Your task to perform on an android device: Clear the shopping cart on amazon. Add acer nitro to the cart on amazon Image 0: 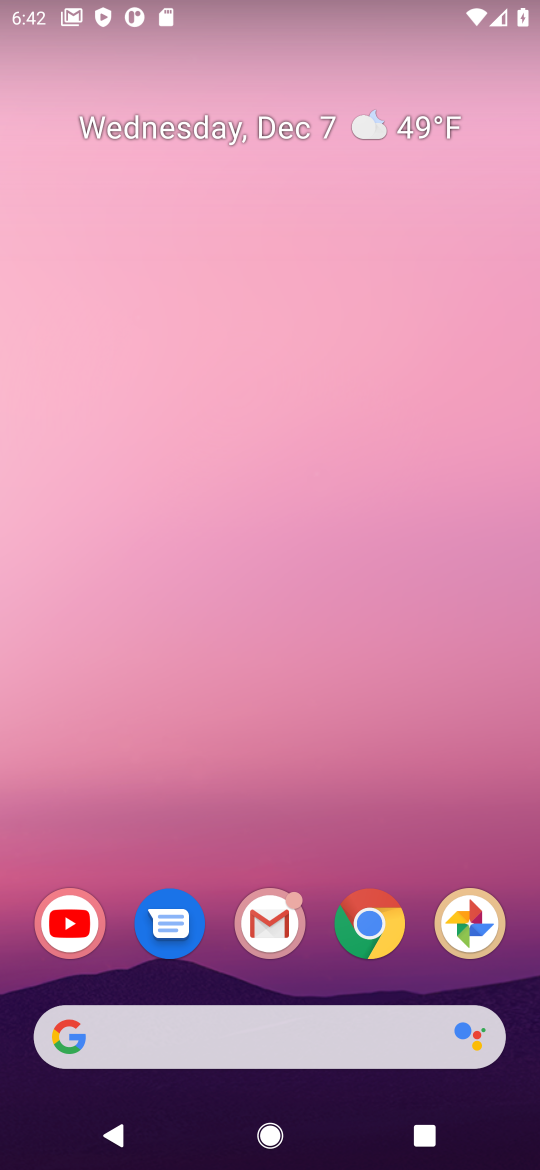
Step 0: drag from (246, 1040) to (278, 343)
Your task to perform on an android device: Clear the shopping cart on amazon. Add acer nitro to the cart on amazon Image 1: 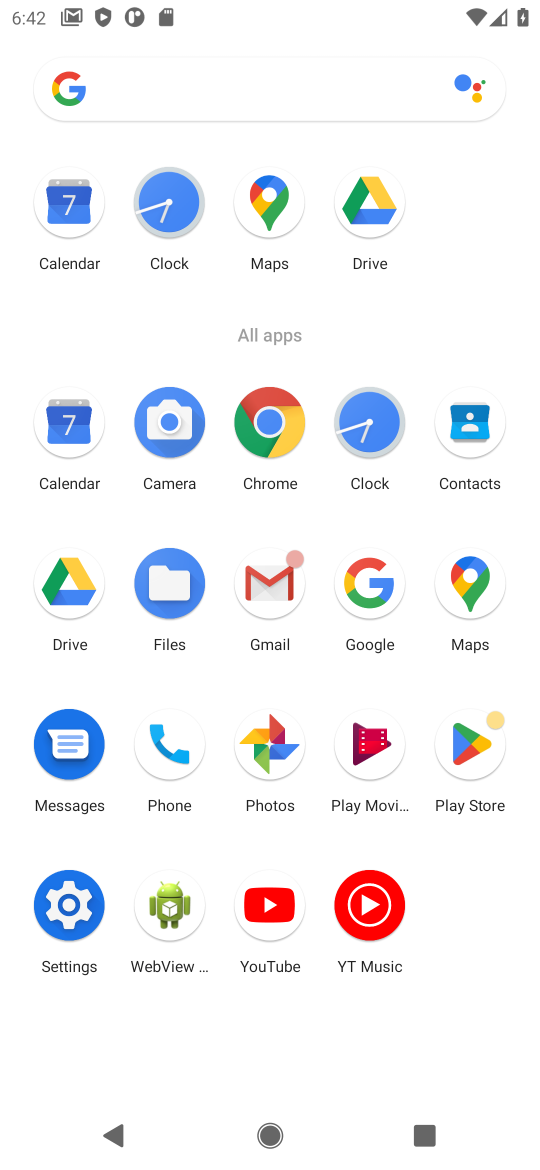
Step 1: click (359, 589)
Your task to perform on an android device: Clear the shopping cart on amazon. Add acer nitro to the cart on amazon Image 2: 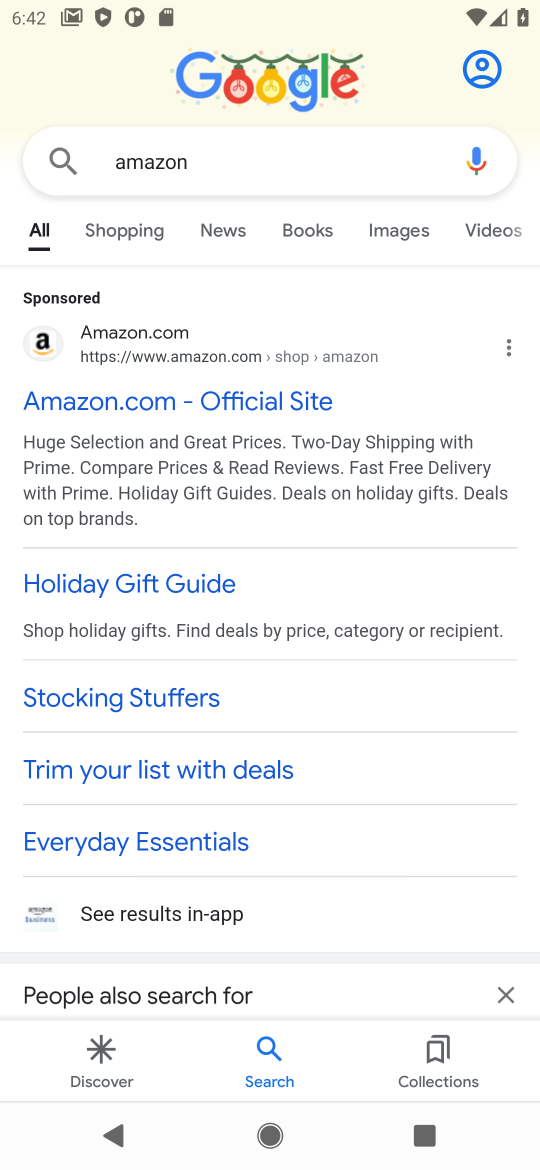
Step 2: click (145, 169)
Your task to perform on an android device: Clear the shopping cart on amazon. Add acer nitro to the cart on amazon Image 3: 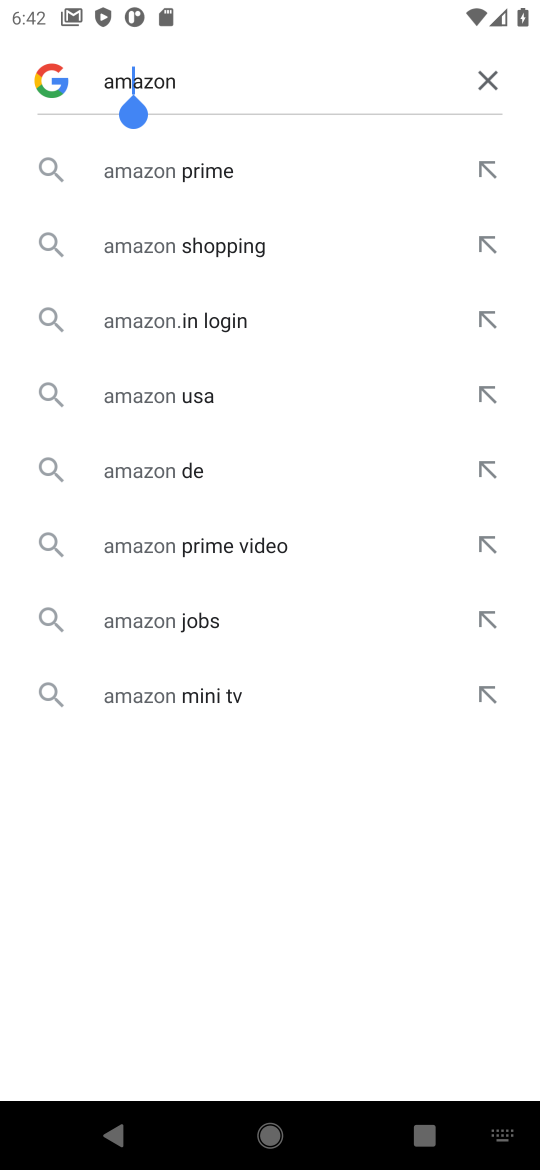
Step 3: click (487, 85)
Your task to perform on an android device: Clear the shopping cart on amazon. Add acer nitro to the cart on amazon Image 4: 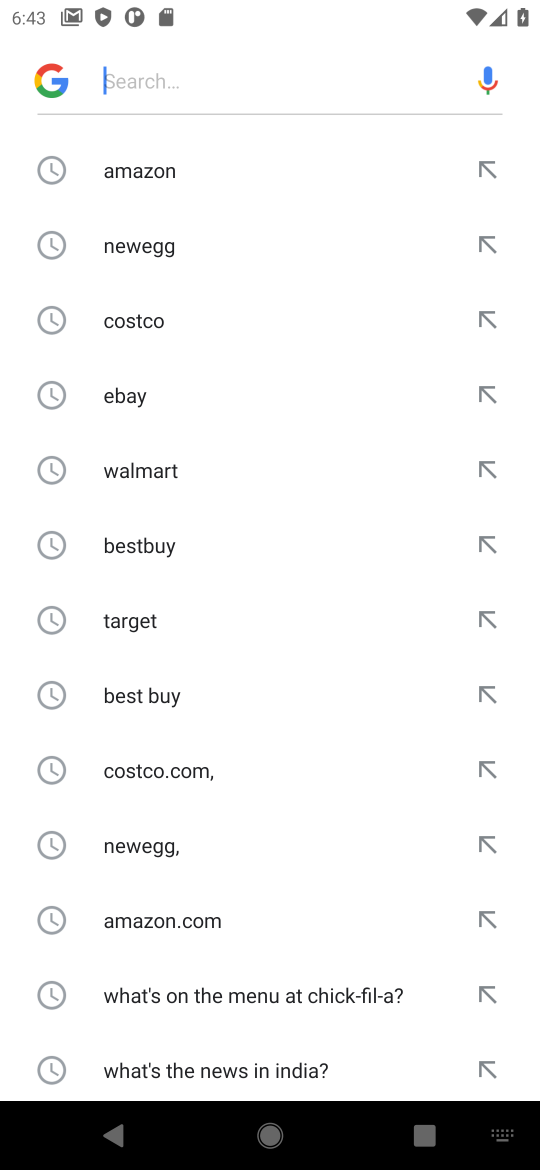
Step 4: click (146, 172)
Your task to perform on an android device: Clear the shopping cart on amazon. Add acer nitro to the cart on amazon Image 5: 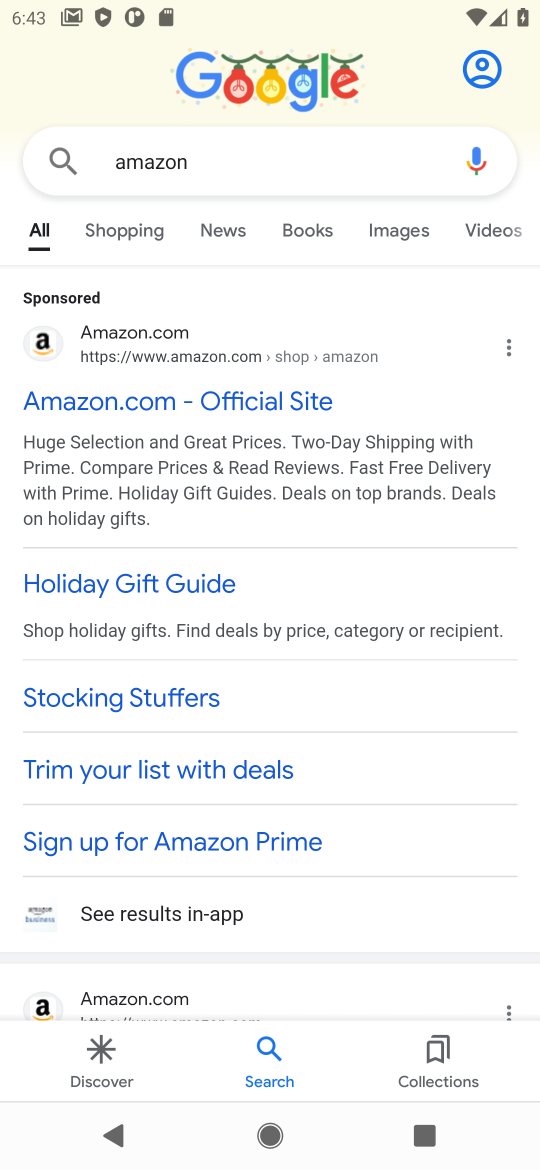
Step 5: click (135, 402)
Your task to perform on an android device: Clear the shopping cart on amazon. Add acer nitro to the cart on amazon Image 6: 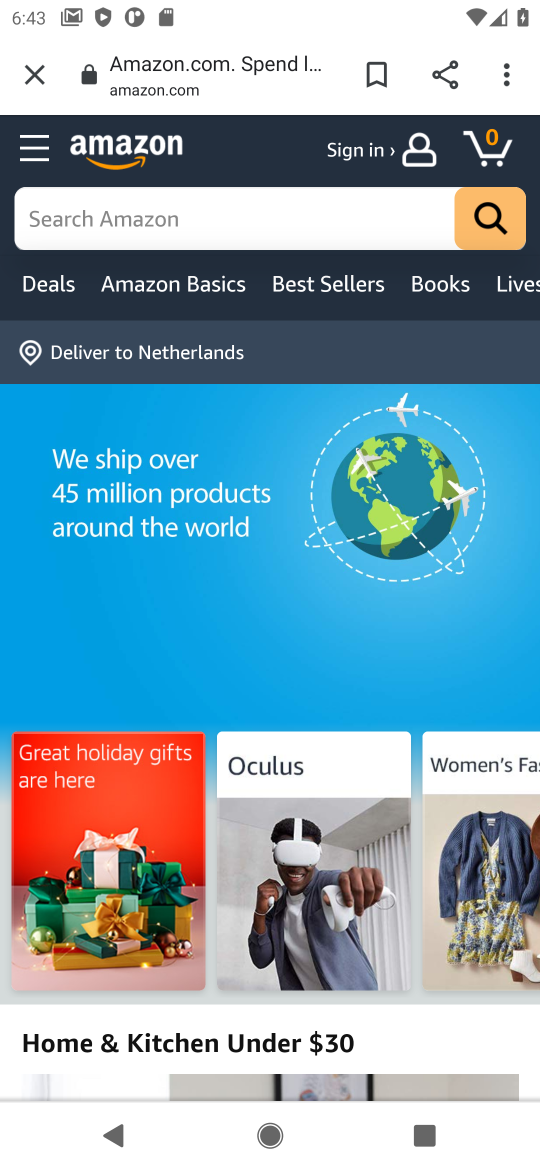
Step 6: click (76, 217)
Your task to perform on an android device: Clear the shopping cart on amazon. Add acer nitro to the cart on amazon Image 7: 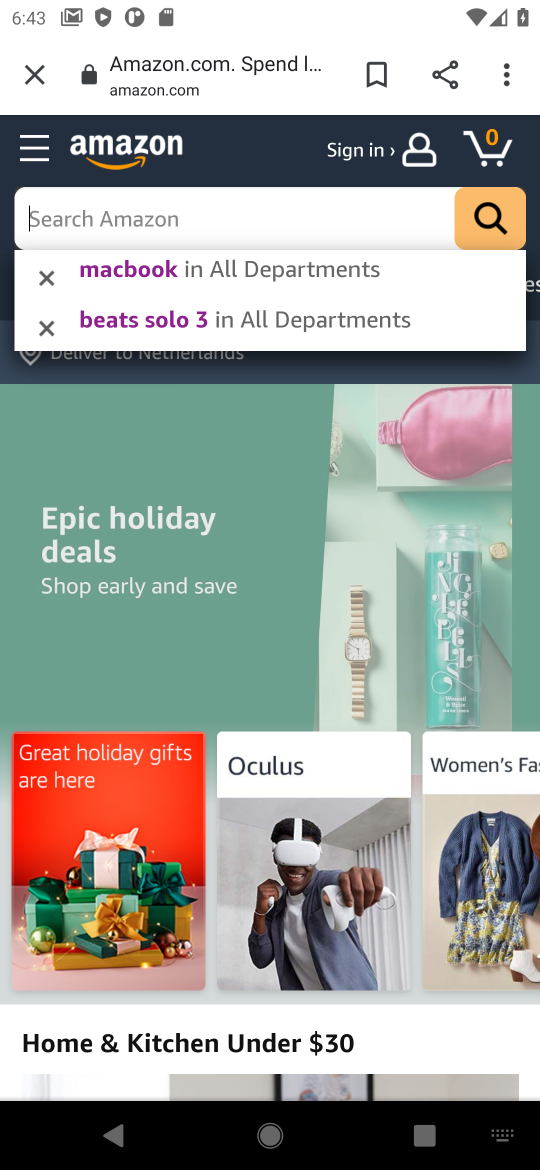
Step 7: click (81, 221)
Your task to perform on an android device: Clear the shopping cart on amazon. Add acer nitro to the cart on amazon Image 8: 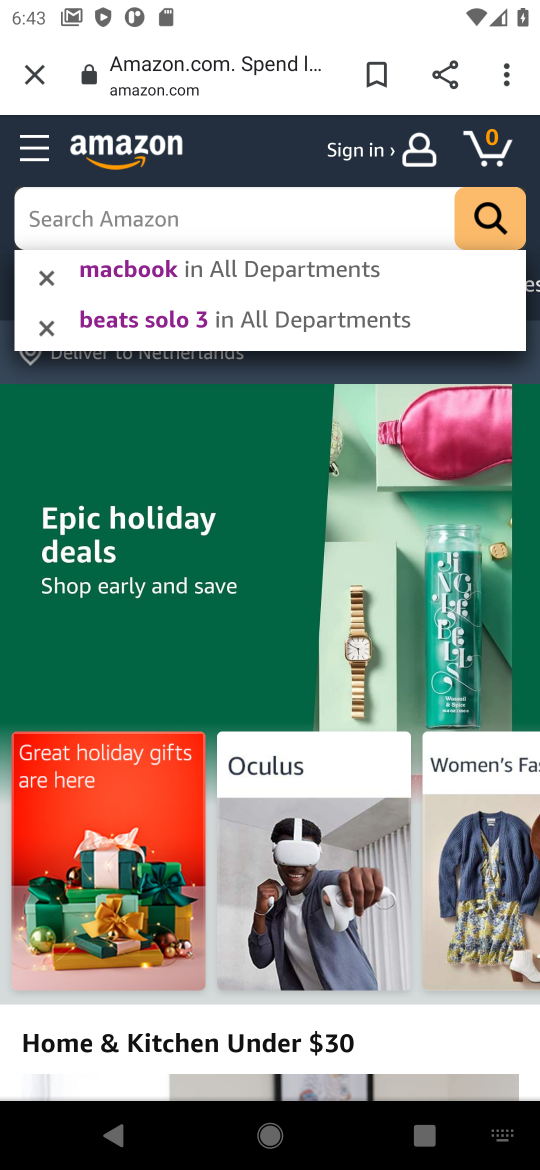
Step 8: type "acer nitro"
Your task to perform on an android device: Clear the shopping cart on amazon. Add acer nitro to the cart on amazon Image 9: 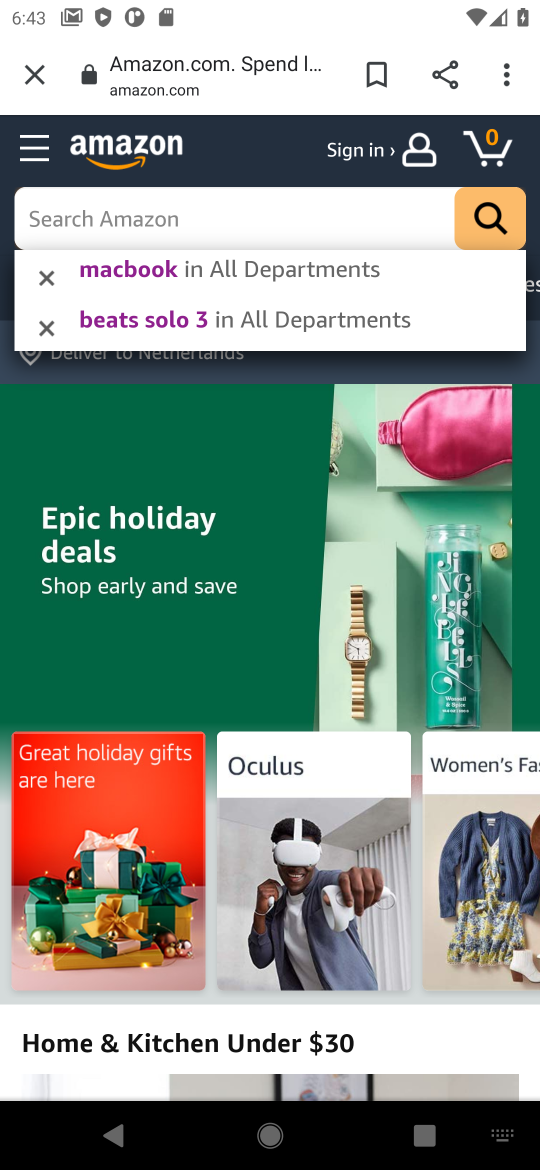
Step 9: click (485, 214)
Your task to perform on an android device: Clear the shopping cart on amazon. Add acer nitro to the cart on amazon Image 10: 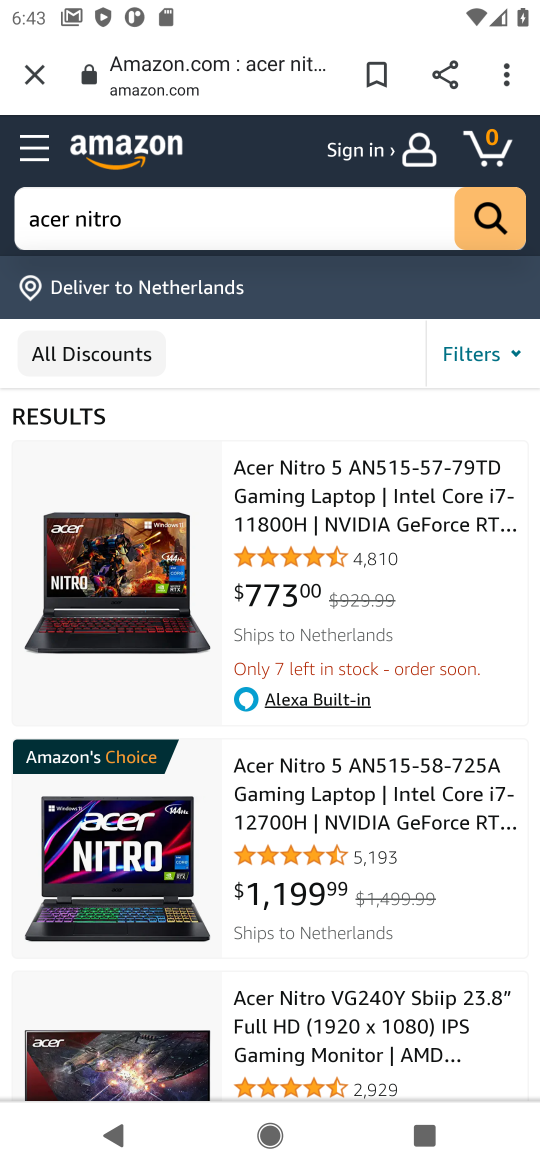
Step 10: click (283, 486)
Your task to perform on an android device: Clear the shopping cart on amazon. Add acer nitro to the cart on amazon Image 11: 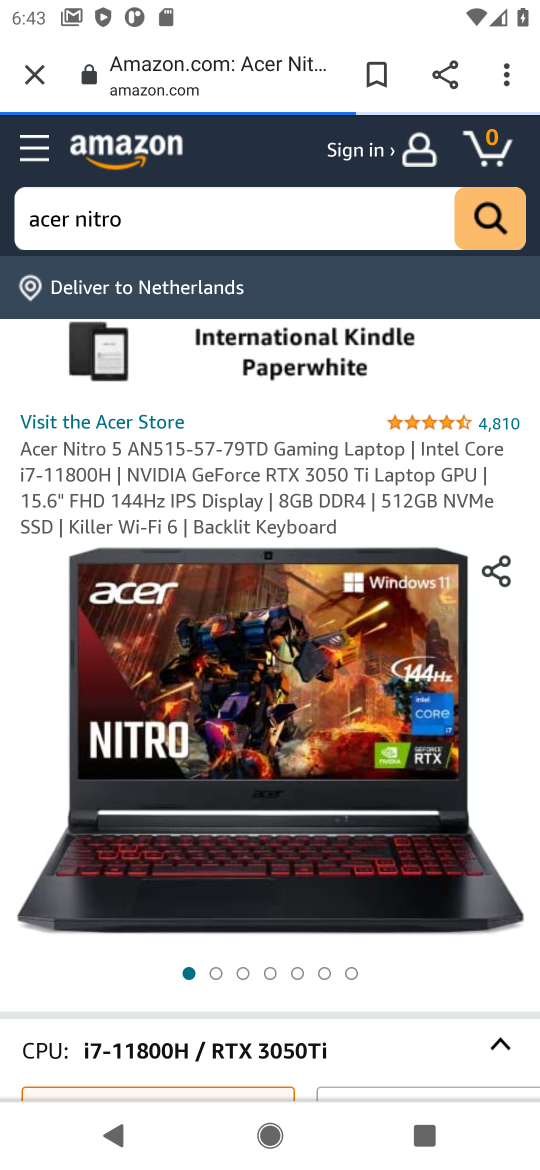
Step 11: drag from (293, 857) to (291, 389)
Your task to perform on an android device: Clear the shopping cart on amazon. Add acer nitro to the cart on amazon Image 12: 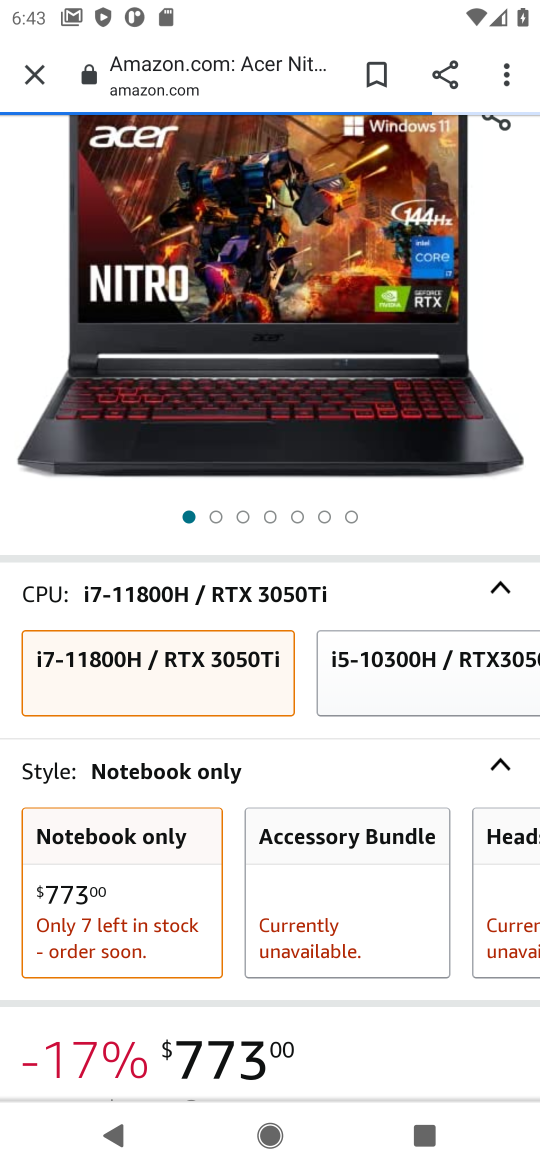
Step 12: drag from (244, 891) to (244, 479)
Your task to perform on an android device: Clear the shopping cart on amazon. Add acer nitro to the cart on amazon Image 13: 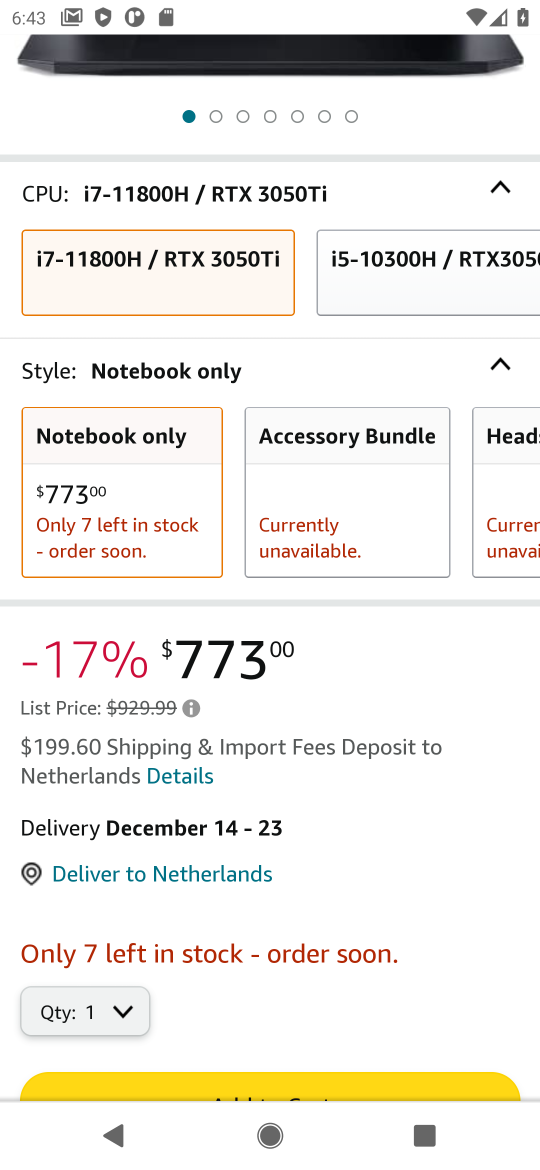
Step 13: drag from (190, 959) to (185, 511)
Your task to perform on an android device: Clear the shopping cart on amazon. Add acer nitro to the cart on amazon Image 14: 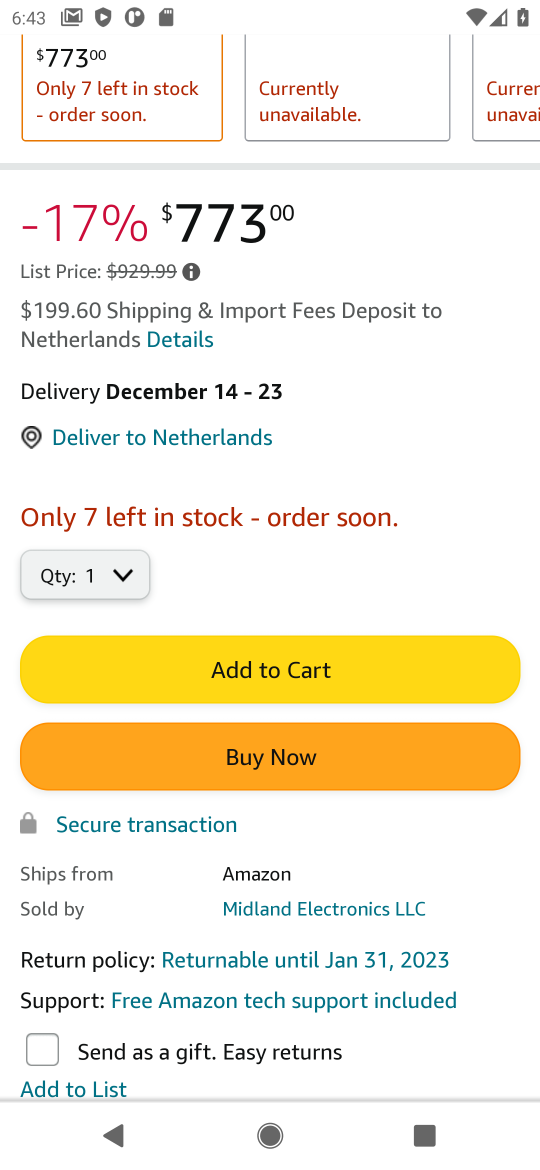
Step 14: click (291, 674)
Your task to perform on an android device: Clear the shopping cart on amazon. Add acer nitro to the cart on amazon Image 15: 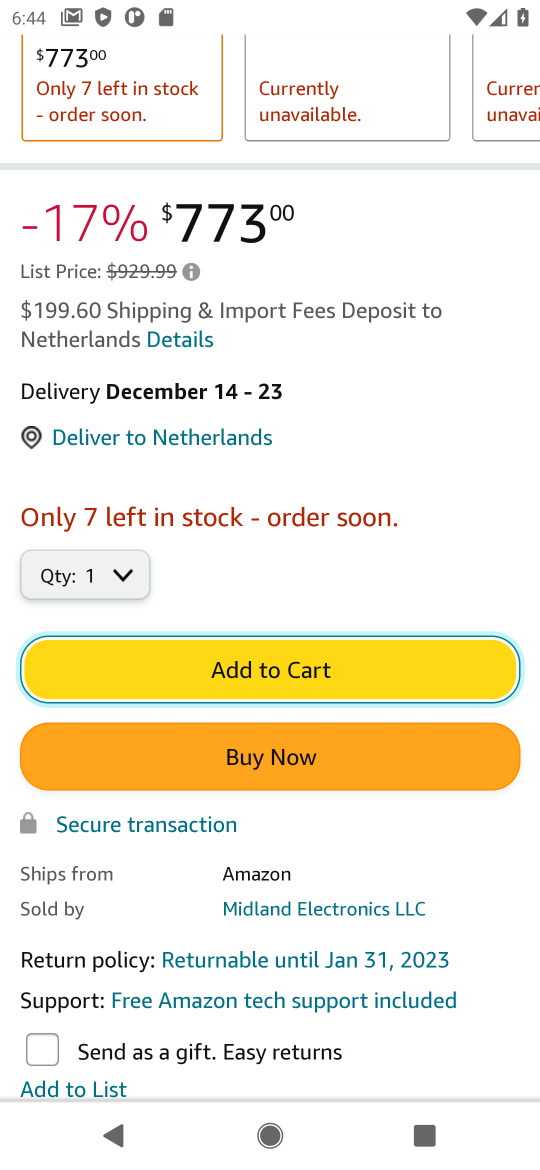
Step 15: click (293, 662)
Your task to perform on an android device: Clear the shopping cart on amazon. Add acer nitro to the cart on amazon Image 16: 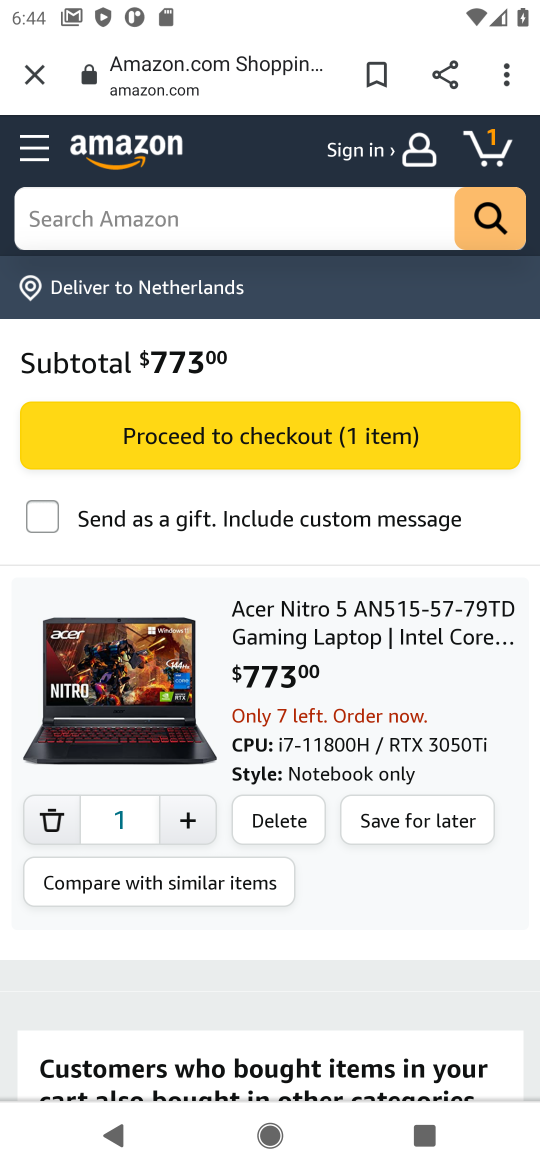
Step 16: task complete